Your task to perform on an android device: open a bookmark in the chrome app Image 0: 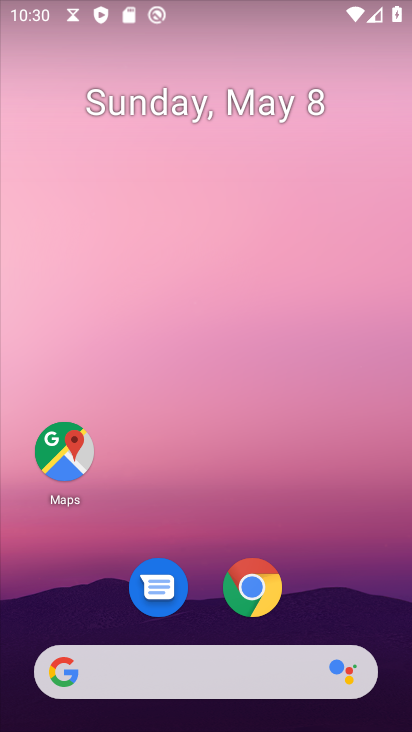
Step 0: click (258, 597)
Your task to perform on an android device: open a bookmark in the chrome app Image 1: 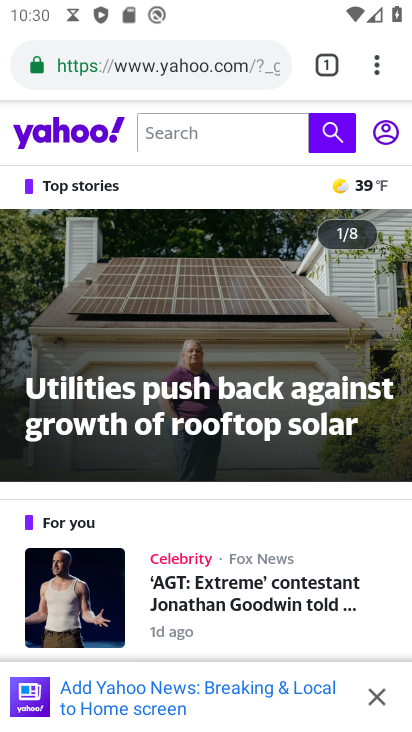
Step 1: task complete